Your task to perform on an android device: remove spam from my inbox in the gmail app Image 0: 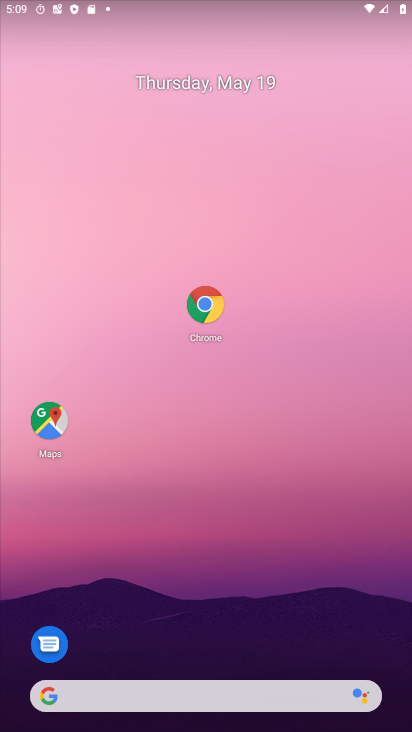
Step 0: drag from (183, 685) to (229, 195)
Your task to perform on an android device: remove spam from my inbox in the gmail app Image 1: 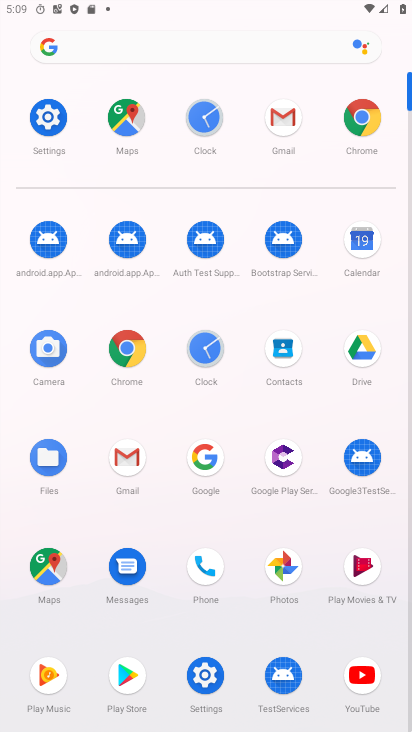
Step 1: click (122, 468)
Your task to perform on an android device: remove spam from my inbox in the gmail app Image 2: 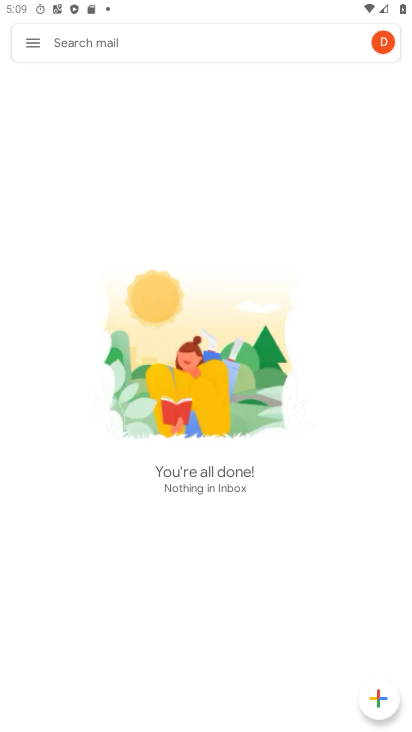
Step 2: click (39, 43)
Your task to perform on an android device: remove spam from my inbox in the gmail app Image 3: 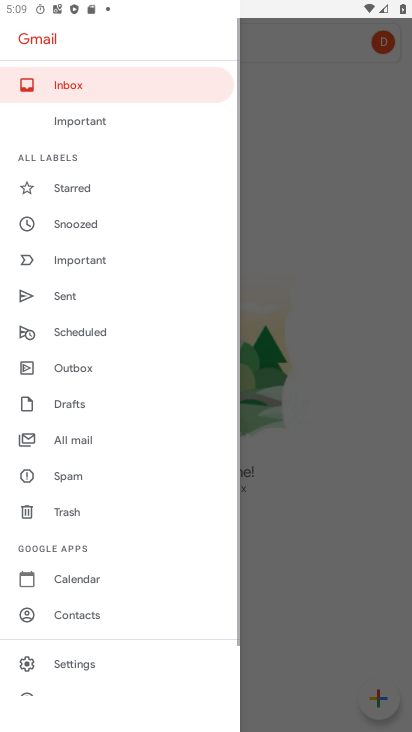
Step 3: click (78, 477)
Your task to perform on an android device: remove spam from my inbox in the gmail app Image 4: 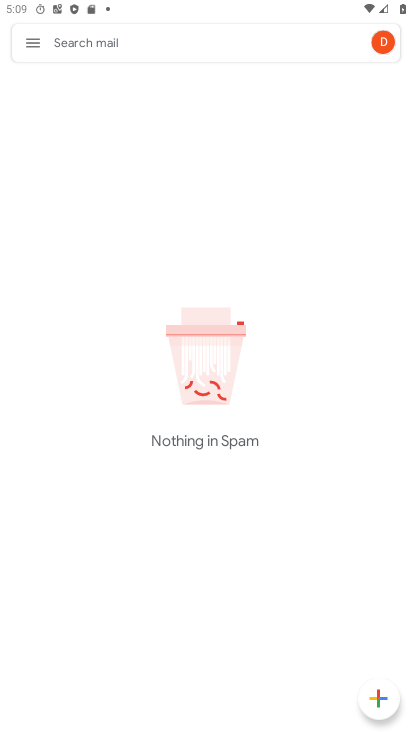
Step 4: task complete